Your task to perform on an android device: find which apps use the phone's location Image 0: 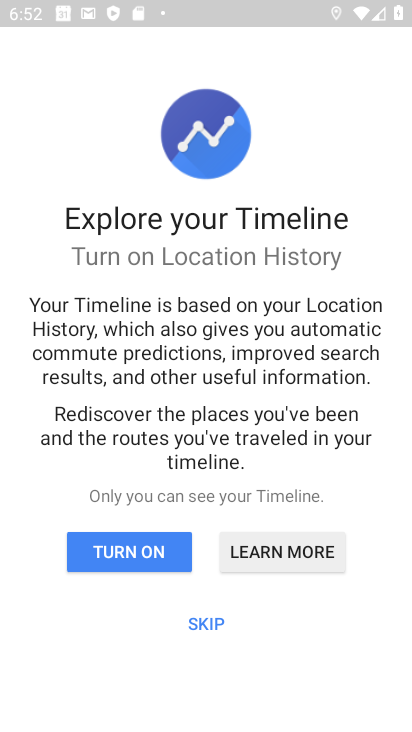
Step 0: press home button
Your task to perform on an android device: find which apps use the phone's location Image 1: 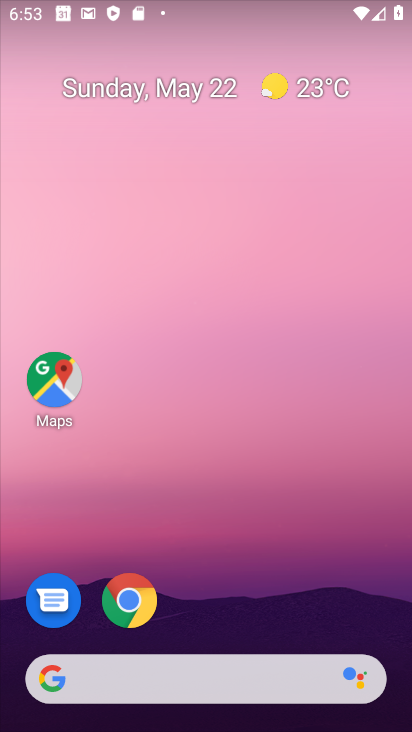
Step 1: drag from (279, 587) to (334, 126)
Your task to perform on an android device: find which apps use the phone's location Image 2: 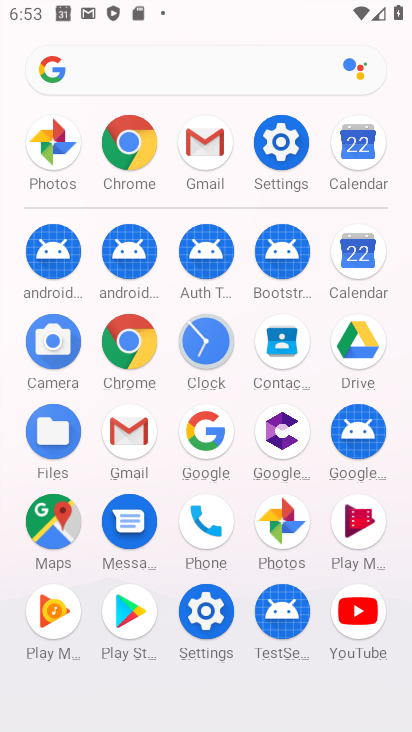
Step 2: click (275, 145)
Your task to perform on an android device: find which apps use the phone's location Image 3: 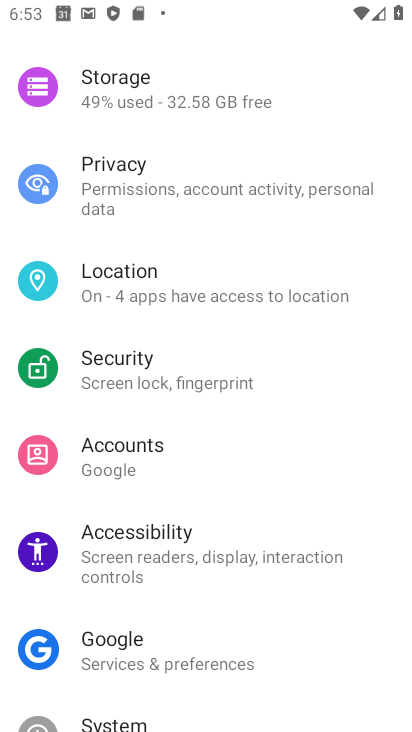
Step 3: click (162, 296)
Your task to perform on an android device: find which apps use the phone's location Image 4: 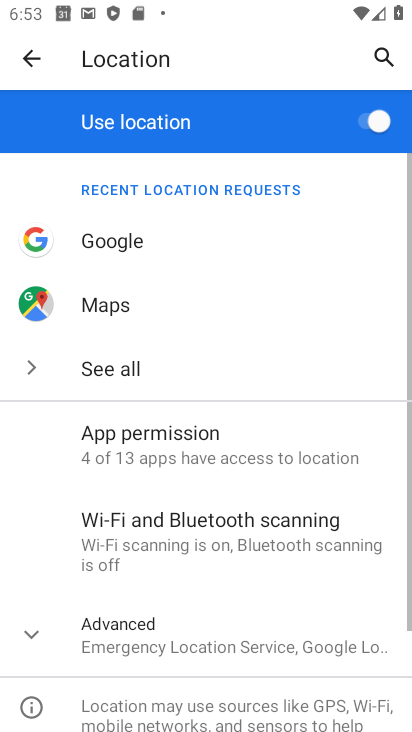
Step 4: click (157, 435)
Your task to perform on an android device: find which apps use the phone's location Image 5: 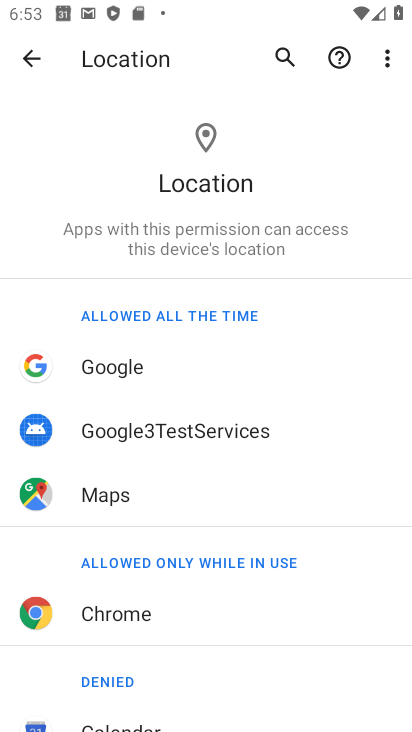
Step 5: drag from (167, 685) to (183, 248)
Your task to perform on an android device: find which apps use the phone's location Image 6: 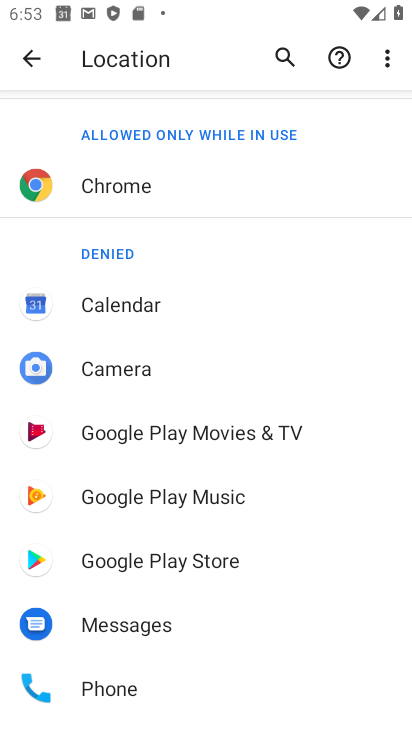
Step 6: click (139, 686)
Your task to perform on an android device: find which apps use the phone's location Image 7: 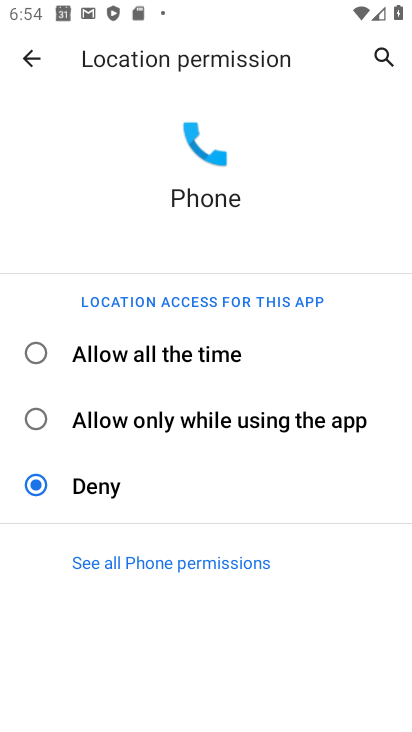
Step 7: click (153, 346)
Your task to perform on an android device: find which apps use the phone's location Image 8: 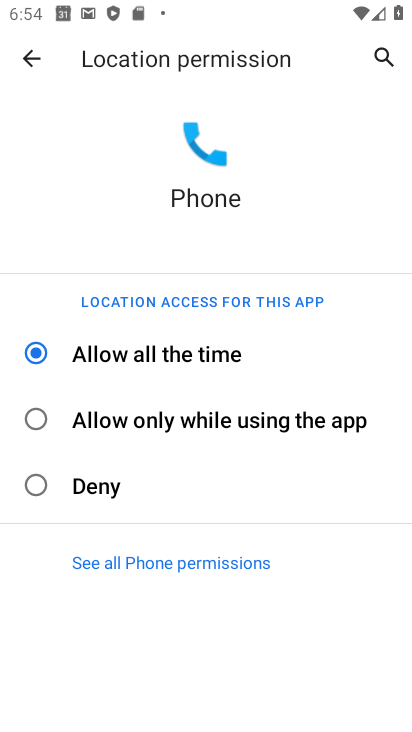
Step 8: task complete